Your task to perform on an android device: Open Chrome and go to the settings page Image 0: 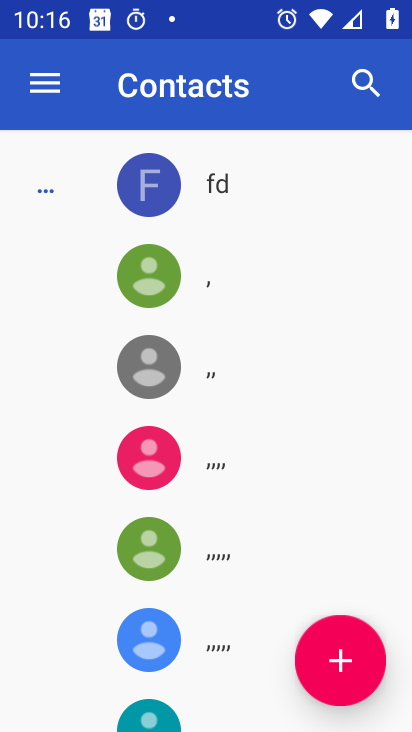
Step 0: press home button
Your task to perform on an android device: Open Chrome and go to the settings page Image 1: 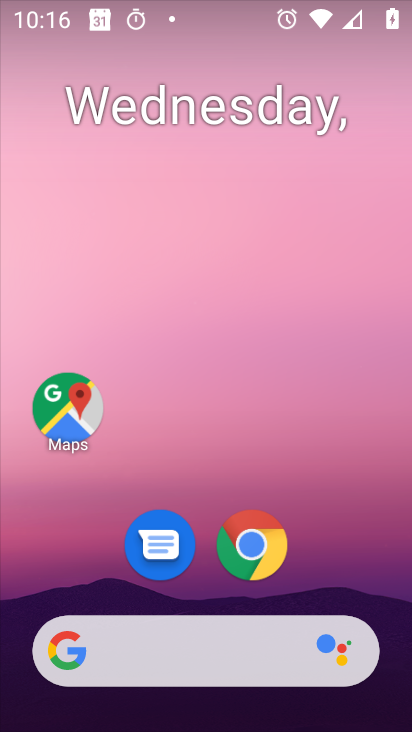
Step 1: click (257, 554)
Your task to perform on an android device: Open Chrome and go to the settings page Image 2: 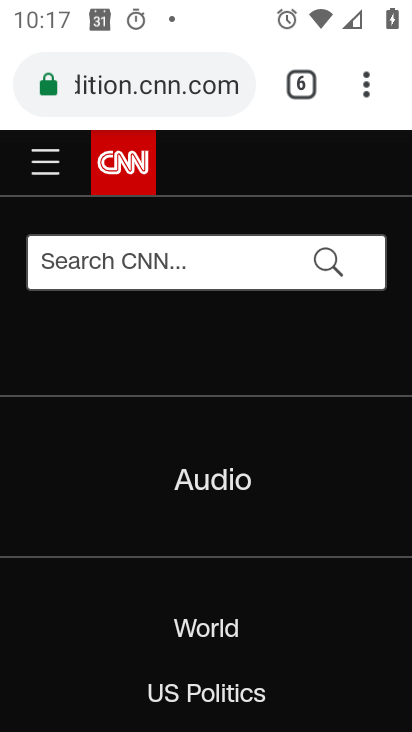
Step 2: task complete